Your task to perform on an android device: turn off sleep mode Image 0: 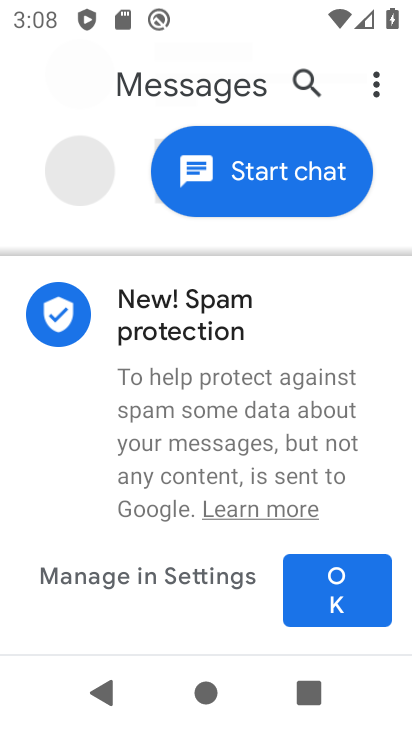
Step 0: press home button
Your task to perform on an android device: turn off sleep mode Image 1: 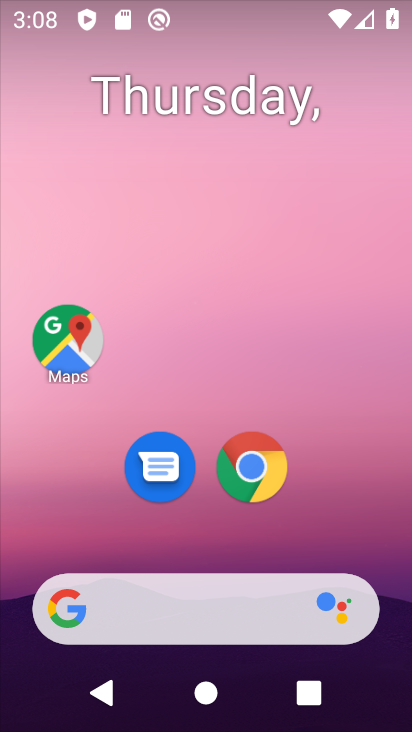
Step 1: drag from (189, 599) to (217, 98)
Your task to perform on an android device: turn off sleep mode Image 2: 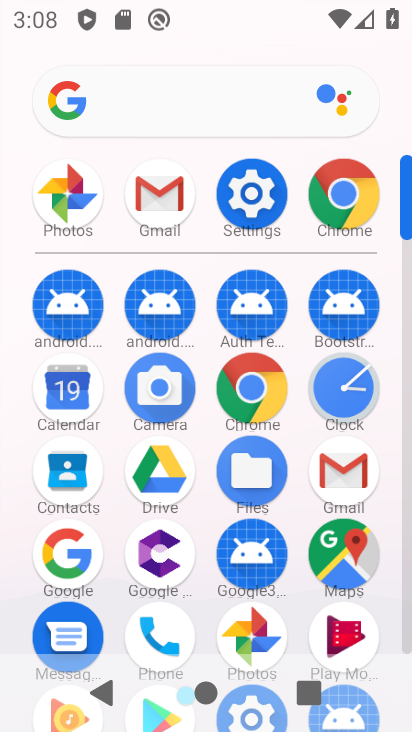
Step 2: click (234, 206)
Your task to perform on an android device: turn off sleep mode Image 3: 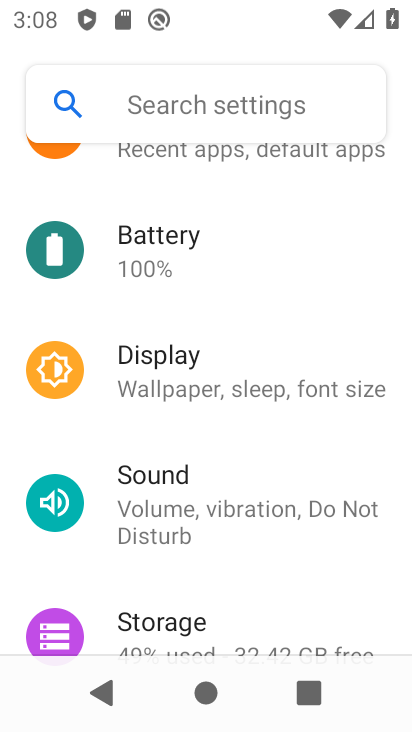
Step 3: click (196, 379)
Your task to perform on an android device: turn off sleep mode Image 4: 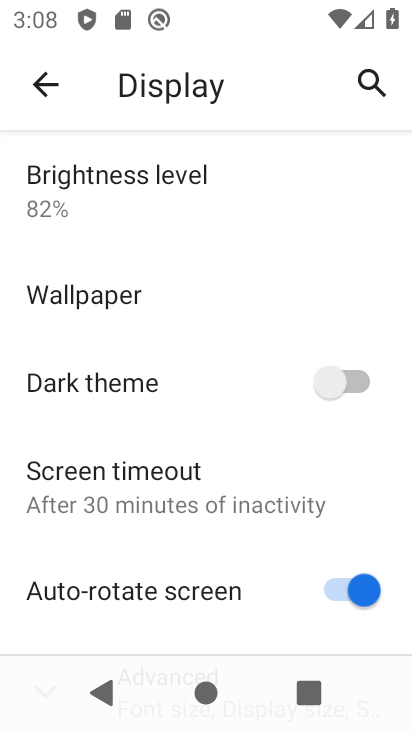
Step 4: drag from (169, 542) to (167, 220)
Your task to perform on an android device: turn off sleep mode Image 5: 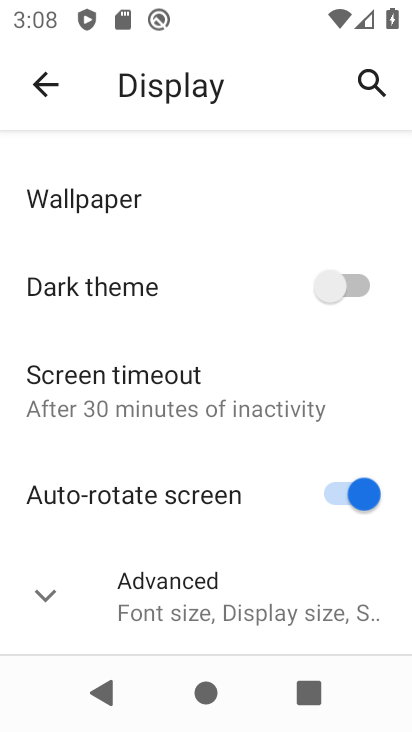
Step 5: click (167, 594)
Your task to perform on an android device: turn off sleep mode Image 6: 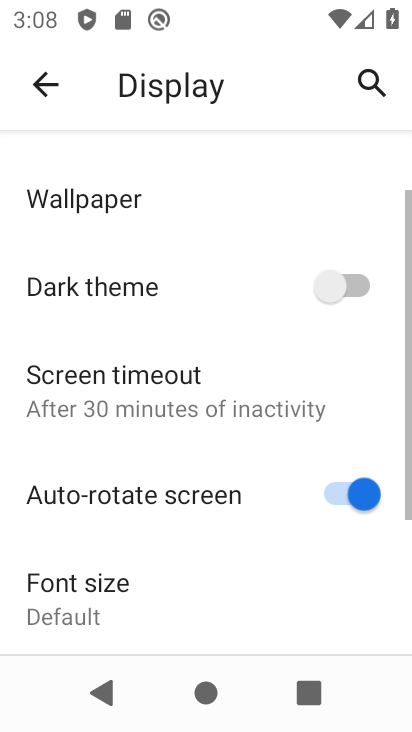
Step 6: task complete